Your task to perform on an android device: Go to location settings Image 0: 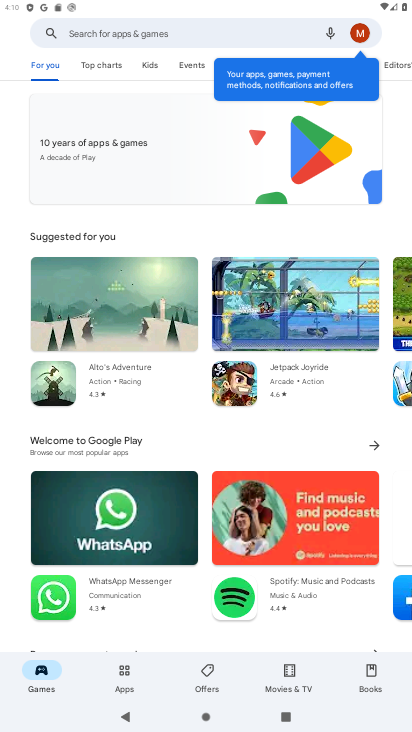
Step 0: press home button
Your task to perform on an android device: Go to location settings Image 1: 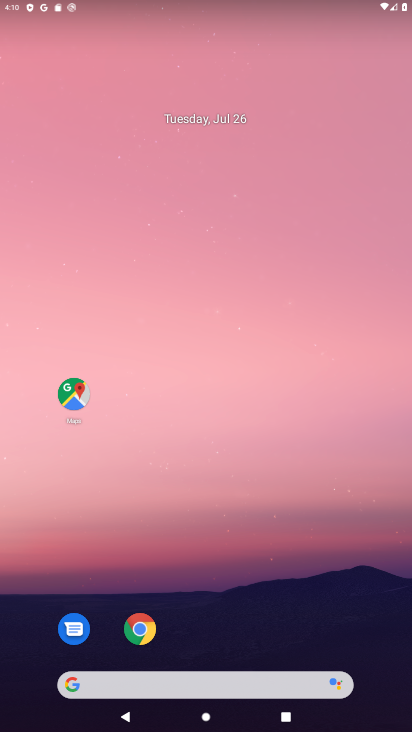
Step 1: drag from (344, 583) to (295, 166)
Your task to perform on an android device: Go to location settings Image 2: 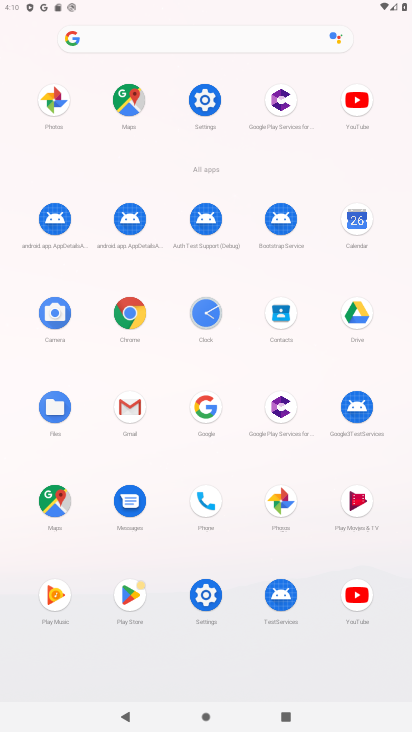
Step 2: click (202, 579)
Your task to perform on an android device: Go to location settings Image 3: 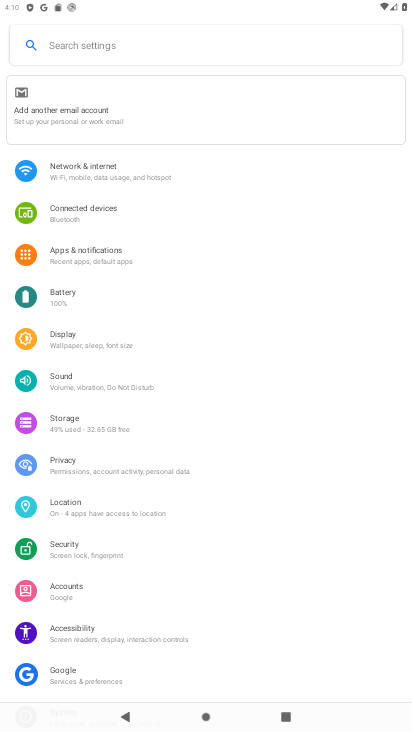
Step 3: click (113, 499)
Your task to perform on an android device: Go to location settings Image 4: 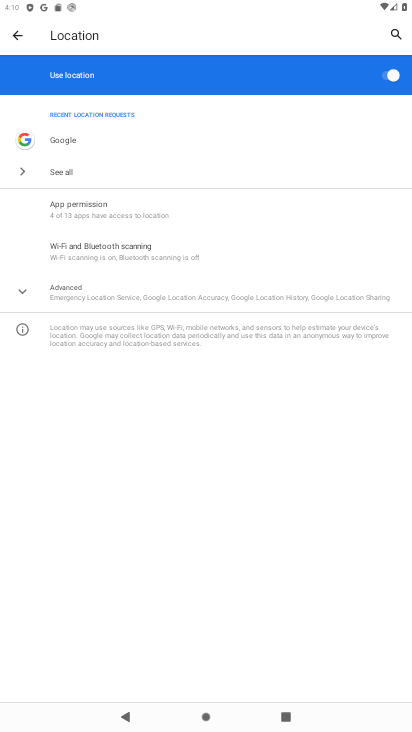
Step 4: task complete